Your task to perform on an android device: Open calendar and show me the second week of next month Image 0: 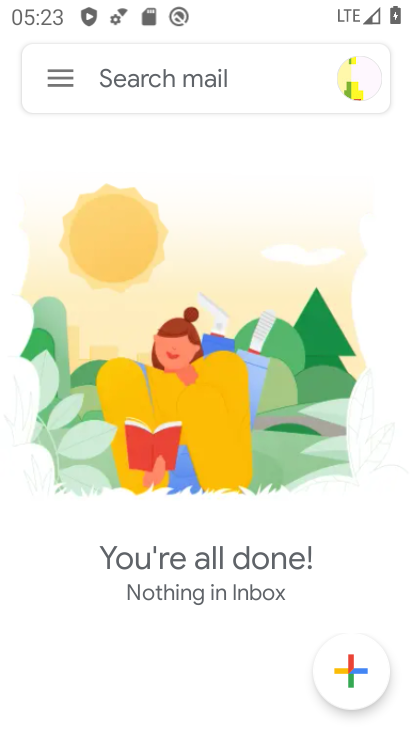
Step 0: press home button
Your task to perform on an android device: Open calendar and show me the second week of next month Image 1: 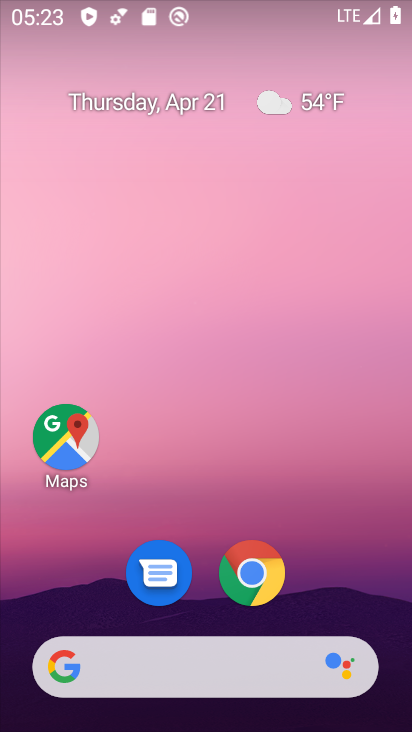
Step 1: drag from (379, 620) to (352, 122)
Your task to perform on an android device: Open calendar and show me the second week of next month Image 2: 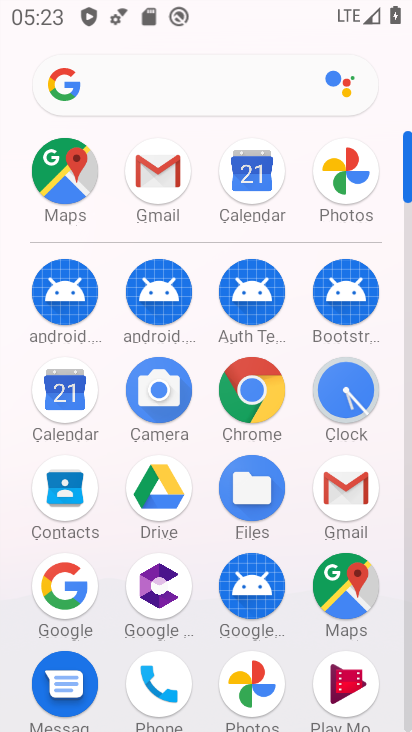
Step 2: click (410, 696)
Your task to perform on an android device: Open calendar and show me the second week of next month Image 3: 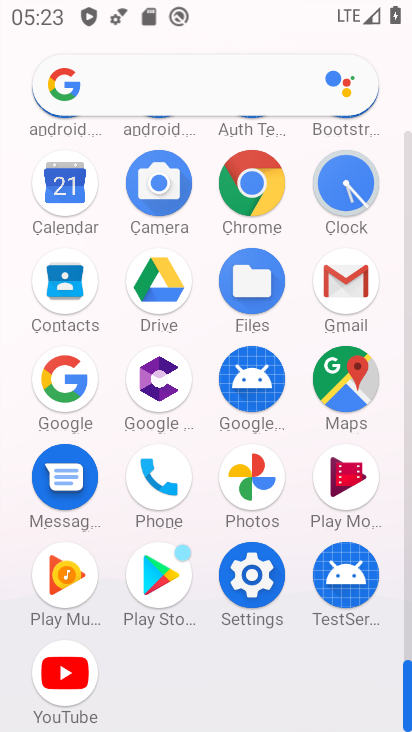
Step 3: click (59, 182)
Your task to perform on an android device: Open calendar and show me the second week of next month Image 4: 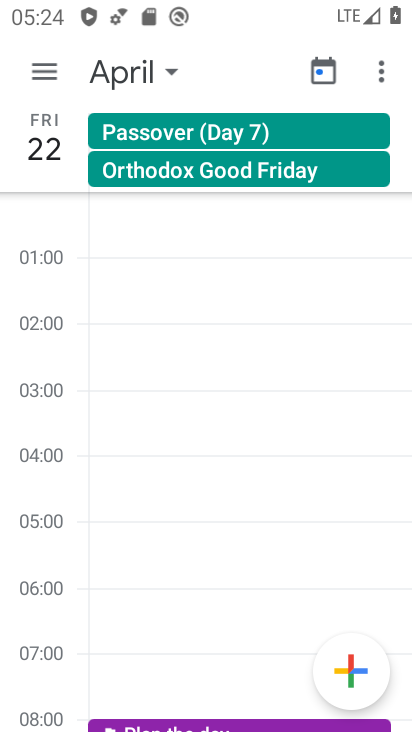
Step 4: click (47, 66)
Your task to perform on an android device: Open calendar and show me the second week of next month Image 5: 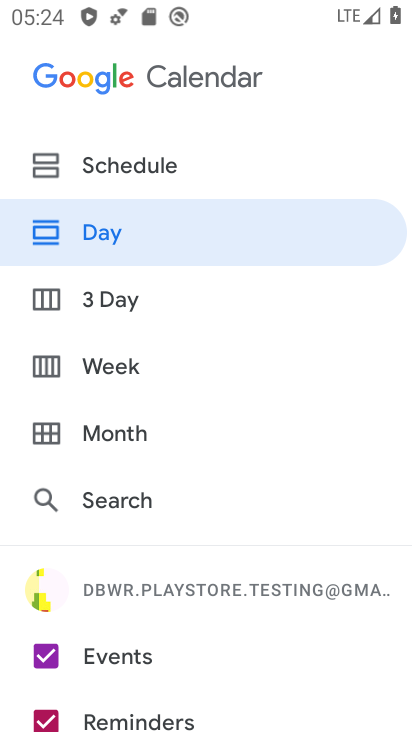
Step 5: click (107, 364)
Your task to perform on an android device: Open calendar and show me the second week of next month Image 6: 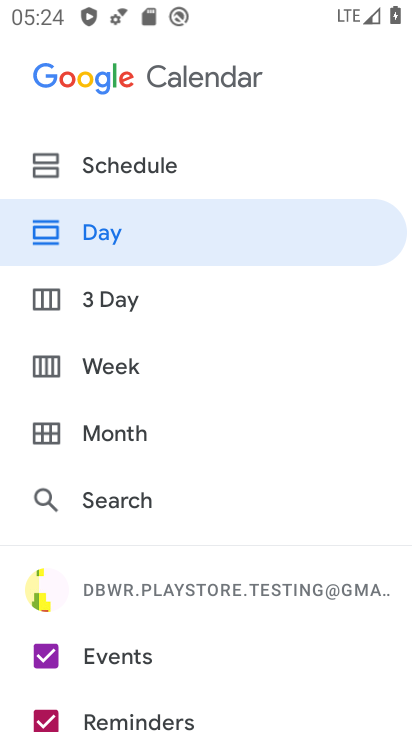
Step 6: click (86, 365)
Your task to perform on an android device: Open calendar and show me the second week of next month Image 7: 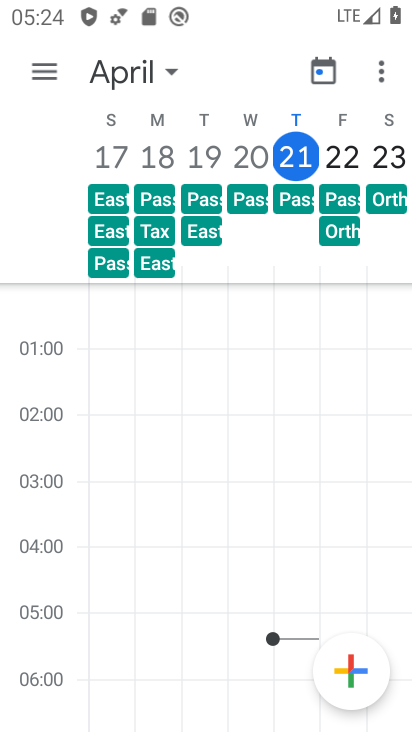
Step 7: click (171, 81)
Your task to perform on an android device: Open calendar and show me the second week of next month Image 8: 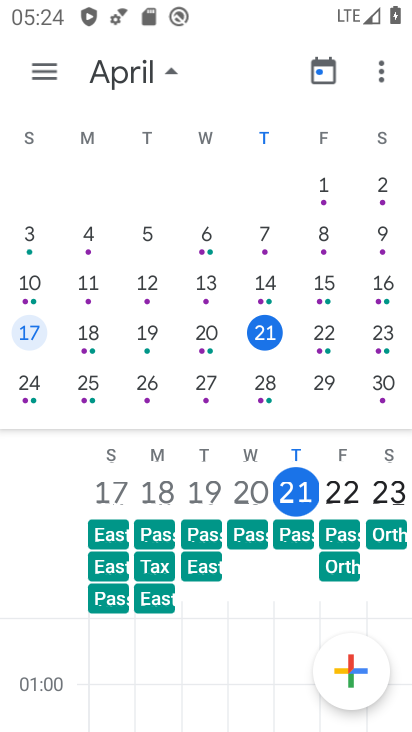
Step 8: drag from (368, 281) to (0, 260)
Your task to perform on an android device: Open calendar and show me the second week of next month Image 9: 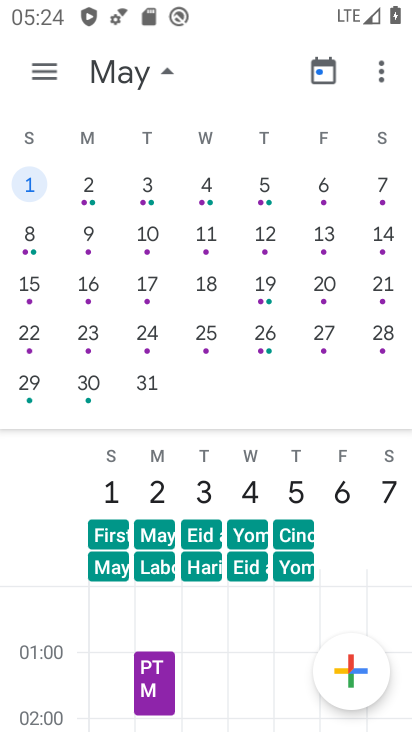
Step 9: click (27, 234)
Your task to perform on an android device: Open calendar and show me the second week of next month Image 10: 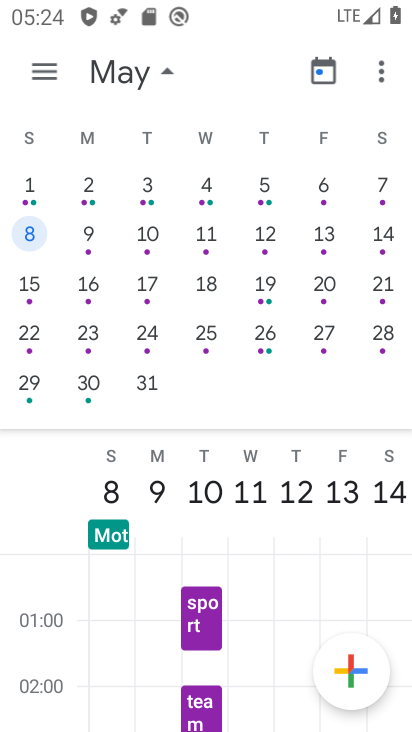
Step 10: task complete